Your task to perform on an android device: change your default location settings in chrome Image 0: 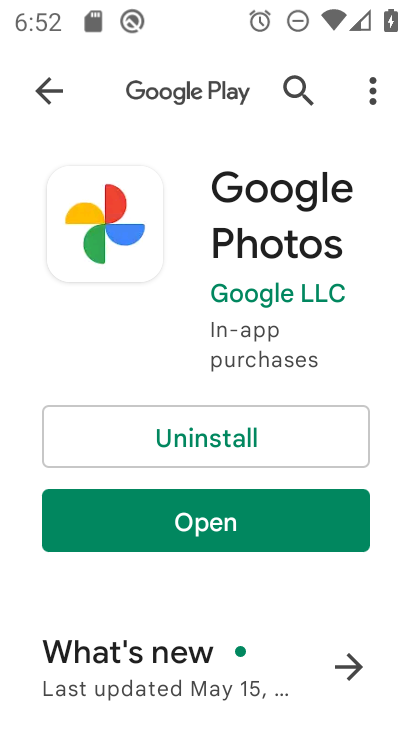
Step 0: press home button
Your task to perform on an android device: change your default location settings in chrome Image 1: 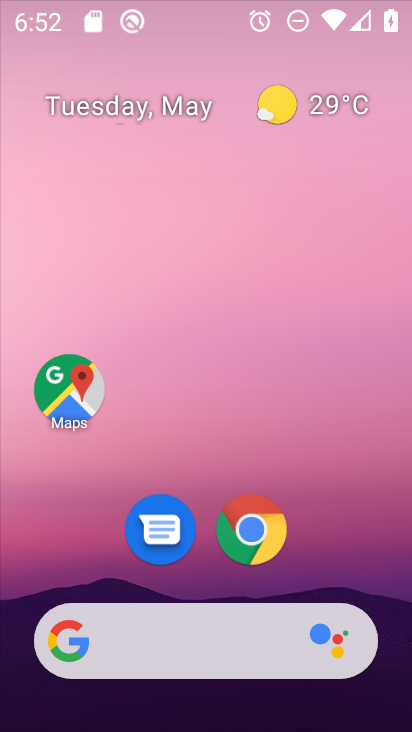
Step 1: drag from (379, 577) to (270, 126)
Your task to perform on an android device: change your default location settings in chrome Image 2: 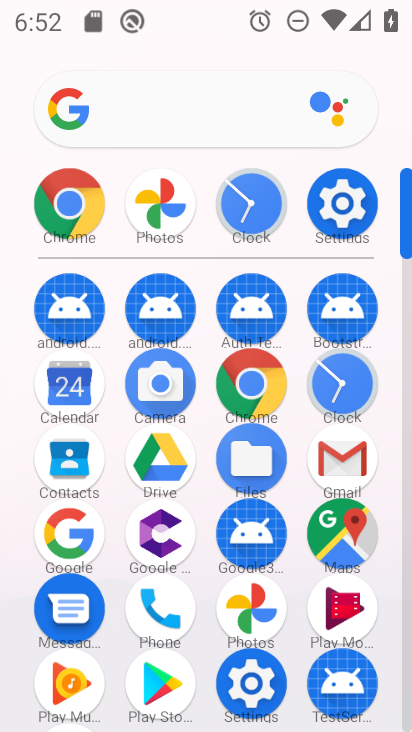
Step 2: click (80, 220)
Your task to perform on an android device: change your default location settings in chrome Image 3: 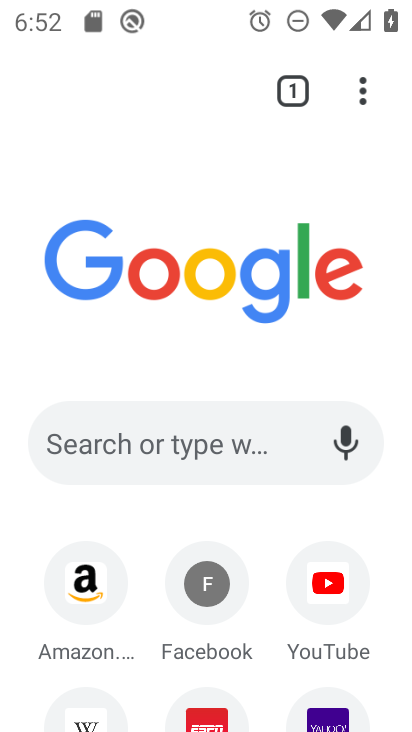
Step 3: click (361, 88)
Your task to perform on an android device: change your default location settings in chrome Image 4: 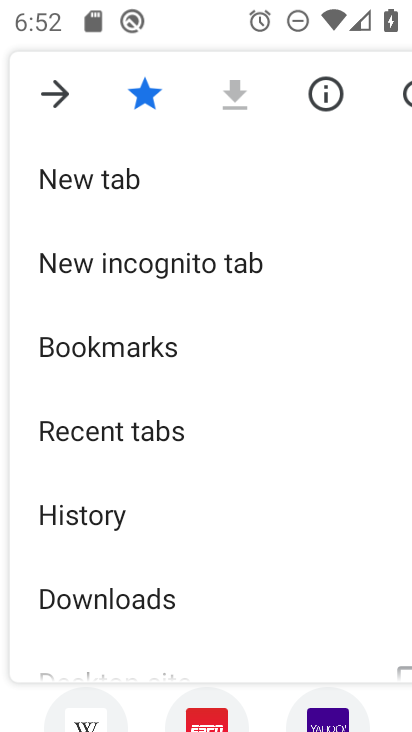
Step 4: drag from (218, 593) to (195, 189)
Your task to perform on an android device: change your default location settings in chrome Image 5: 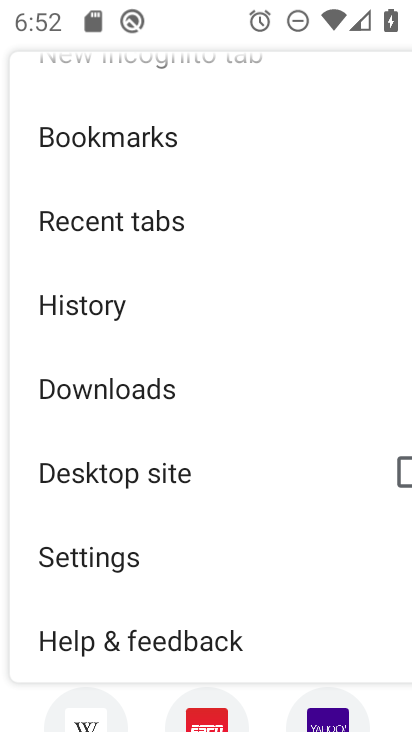
Step 5: click (151, 559)
Your task to perform on an android device: change your default location settings in chrome Image 6: 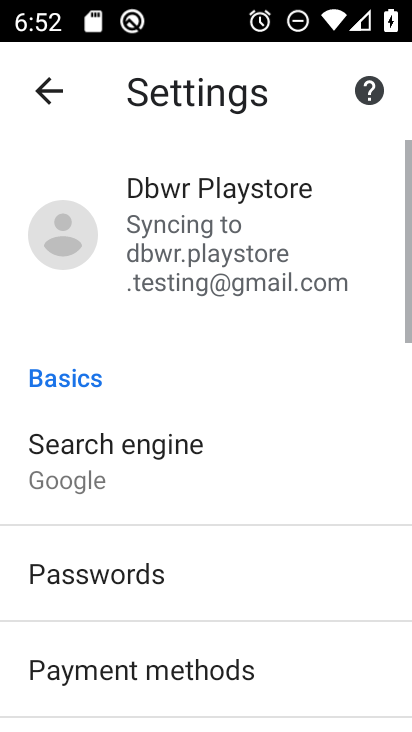
Step 6: click (160, 469)
Your task to perform on an android device: change your default location settings in chrome Image 7: 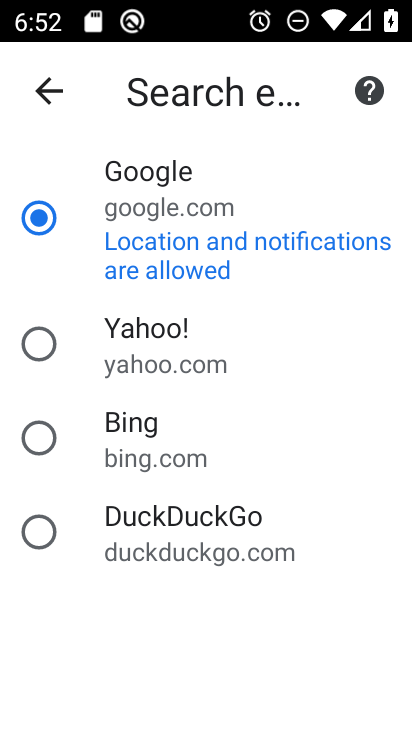
Step 7: click (116, 421)
Your task to perform on an android device: change your default location settings in chrome Image 8: 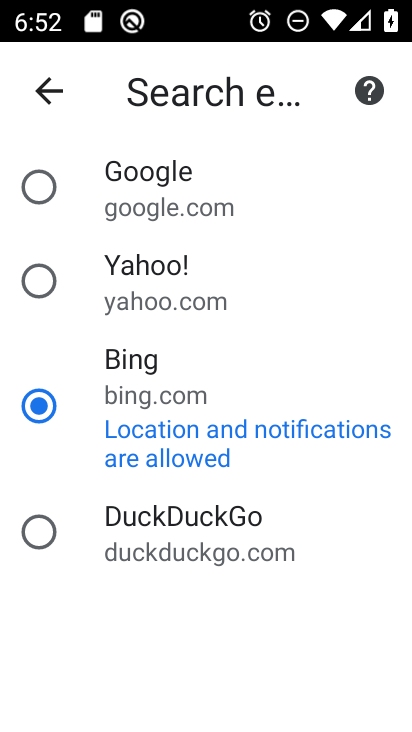
Step 8: task complete